Your task to perform on an android device: Open Google Maps and go to "Timeline" Image 0: 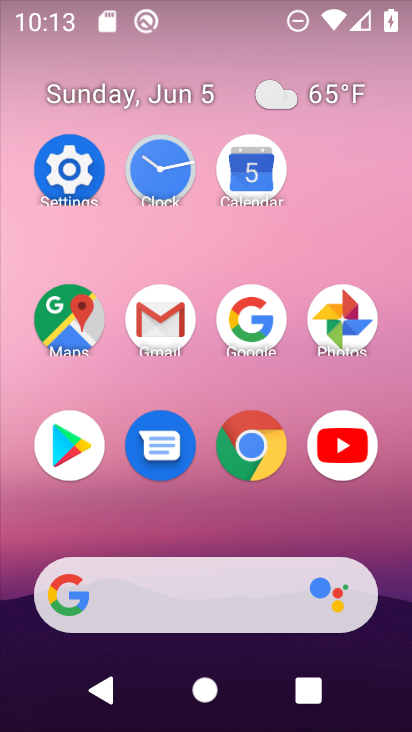
Step 0: click (89, 314)
Your task to perform on an android device: Open Google Maps and go to "Timeline" Image 1: 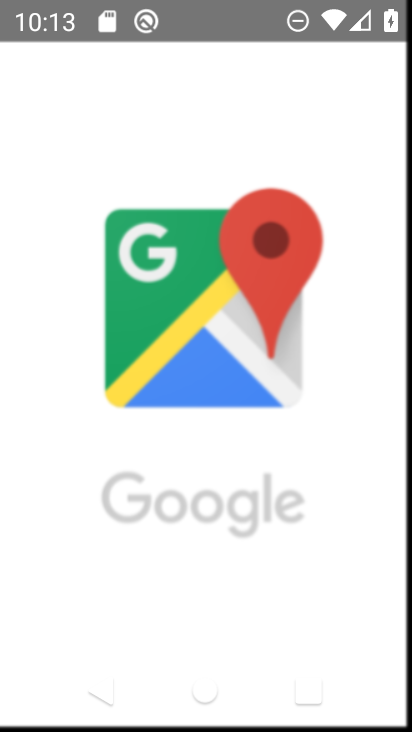
Step 1: task complete